Your task to perform on an android device: Go to calendar. Show me events next week Image 0: 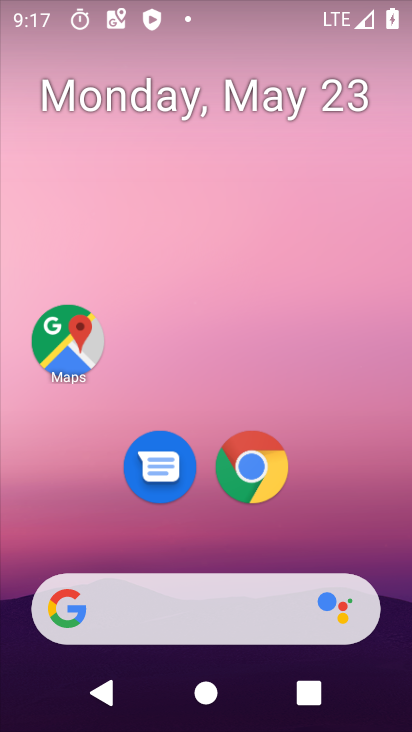
Step 0: drag from (283, 506) to (265, 57)
Your task to perform on an android device: Go to calendar. Show me events next week Image 1: 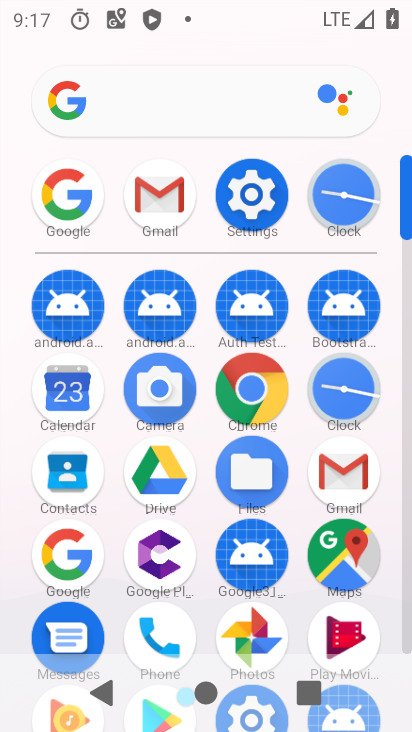
Step 1: click (57, 395)
Your task to perform on an android device: Go to calendar. Show me events next week Image 2: 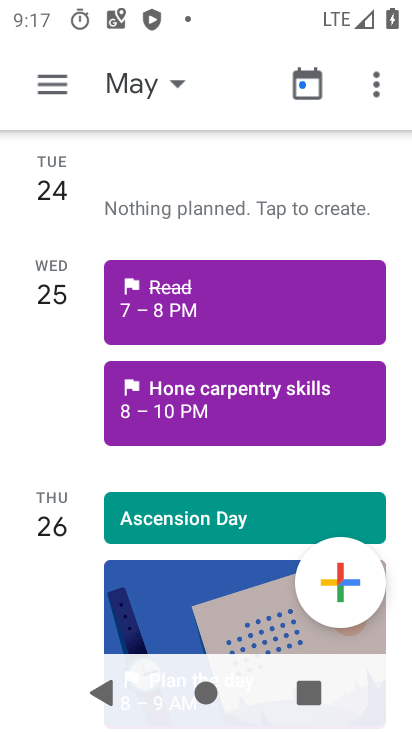
Step 2: click (46, 91)
Your task to perform on an android device: Go to calendar. Show me events next week Image 3: 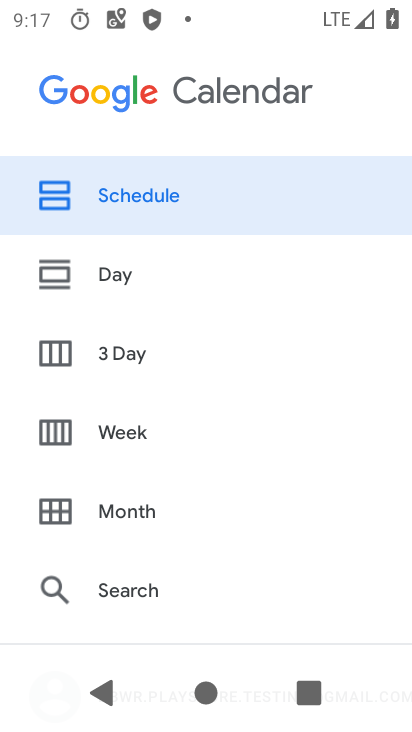
Step 3: click (134, 447)
Your task to perform on an android device: Go to calendar. Show me events next week Image 4: 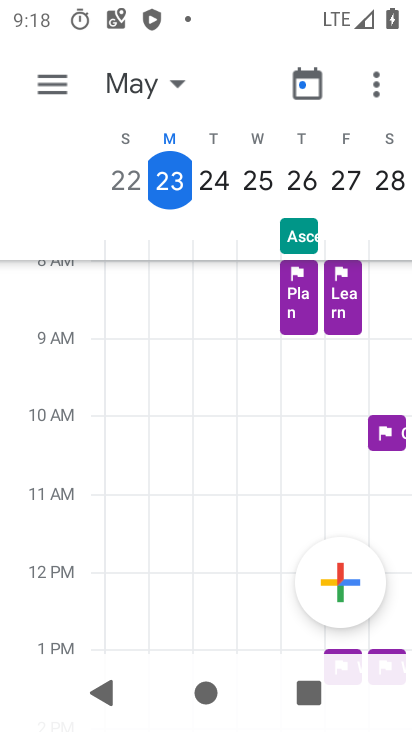
Step 4: click (165, 80)
Your task to perform on an android device: Go to calendar. Show me events next week Image 5: 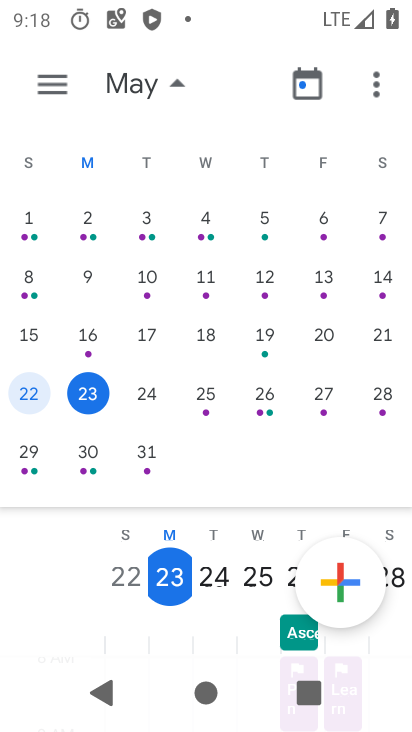
Step 5: click (26, 452)
Your task to perform on an android device: Go to calendar. Show me events next week Image 6: 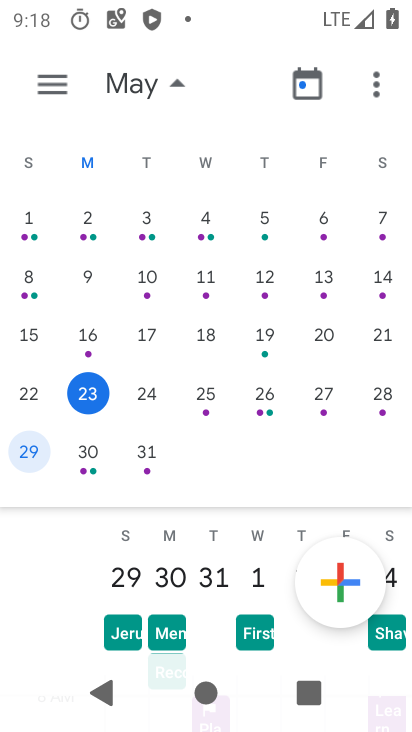
Step 6: task complete